Your task to perform on an android device: Search for Italian restaurants on Maps Image 0: 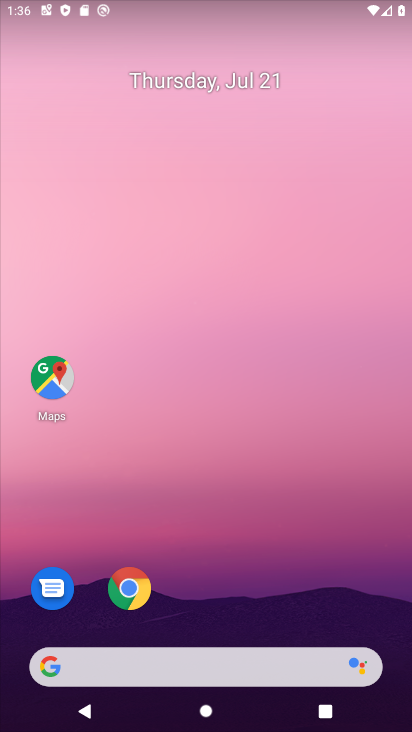
Step 0: drag from (220, 628) to (154, 46)
Your task to perform on an android device: Search for Italian restaurants on Maps Image 1: 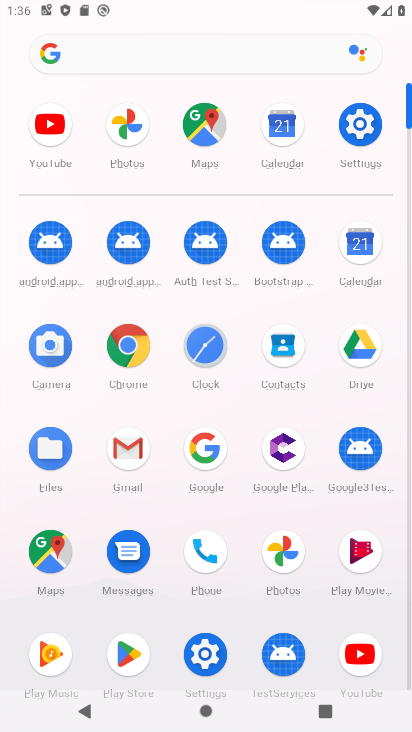
Step 1: click (210, 129)
Your task to perform on an android device: Search for Italian restaurants on Maps Image 2: 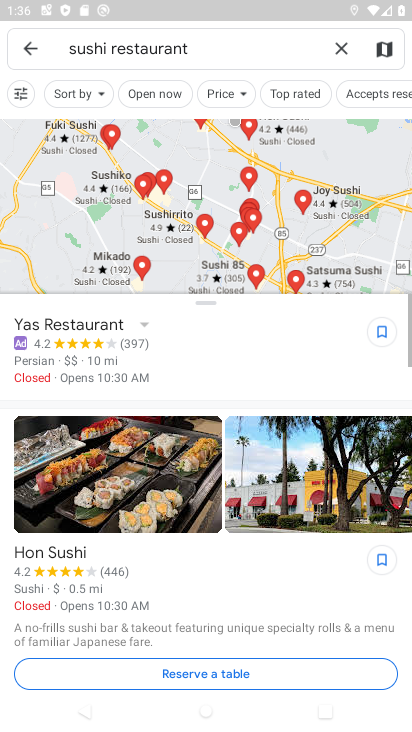
Step 2: click (340, 46)
Your task to perform on an android device: Search for Italian restaurants on Maps Image 3: 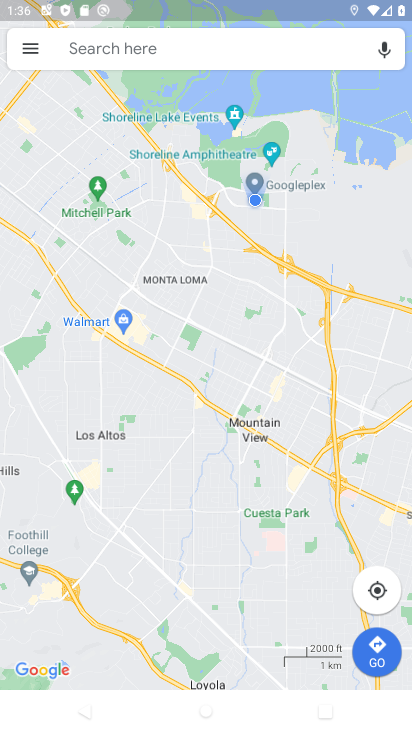
Step 3: click (232, 54)
Your task to perform on an android device: Search for Italian restaurants on Maps Image 4: 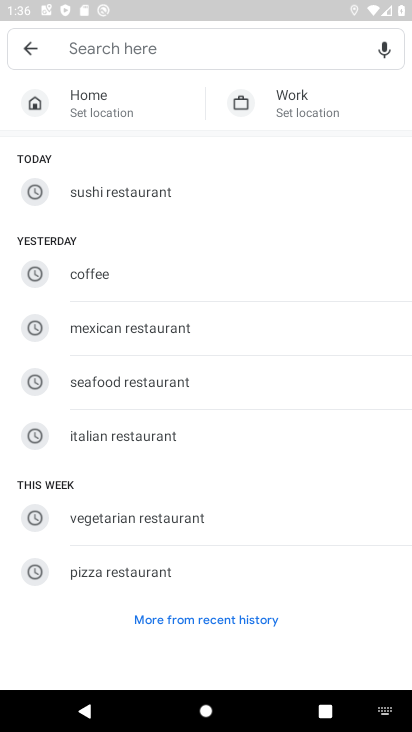
Step 4: click (101, 438)
Your task to perform on an android device: Search for Italian restaurants on Maps Image 5: 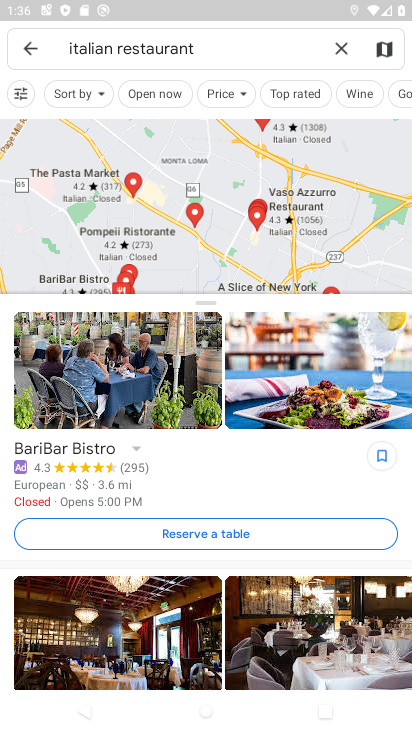
Step 5: task complete